Your task to perform on an android device: Open calendar and show me the third week of next month Image 0: 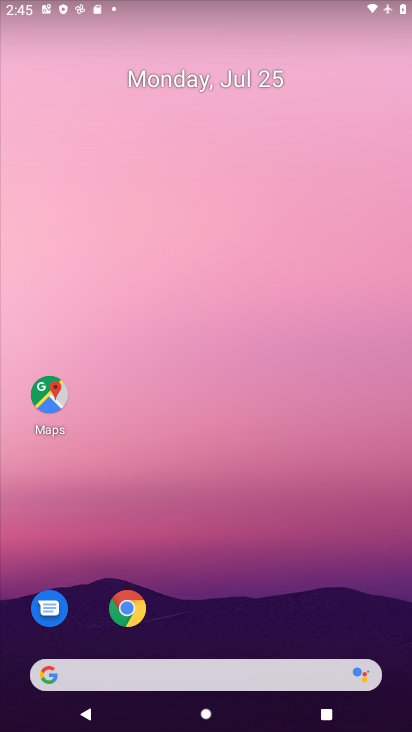
Step 0: drag from (195, 661) to (320, 181)
Your task to perform on an android device: Open calendar and show me the third week of next month Image 1: 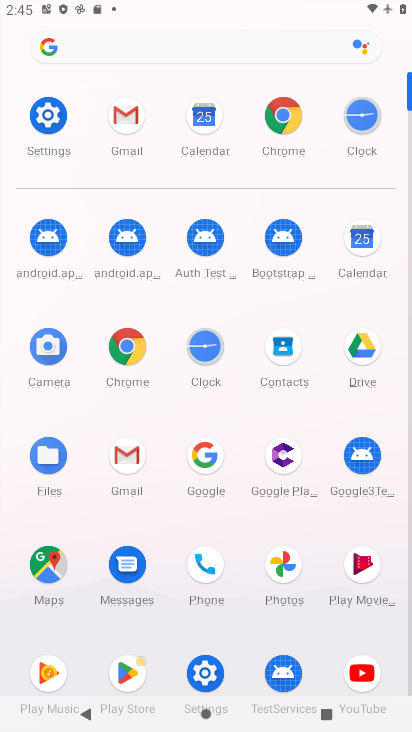
Step 1: click (356, 255)
Your task to perform on an android device: Open calendar and show me the third week of next month Image 2: 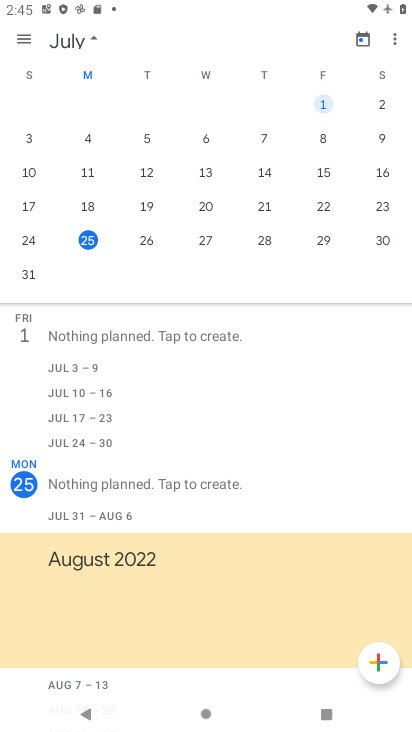
Step 2: drag from (337, 198) to (5, 226)
Your task to perform on an android device: Open calendar and show me the third week of next month Image 3: 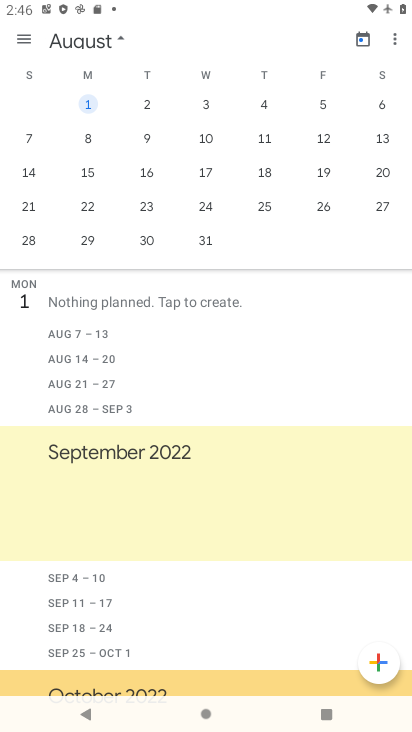
Step 3: click (36, 179)
Your task to perform on an android device: Open calendar and show me the third week of next month Image 4: 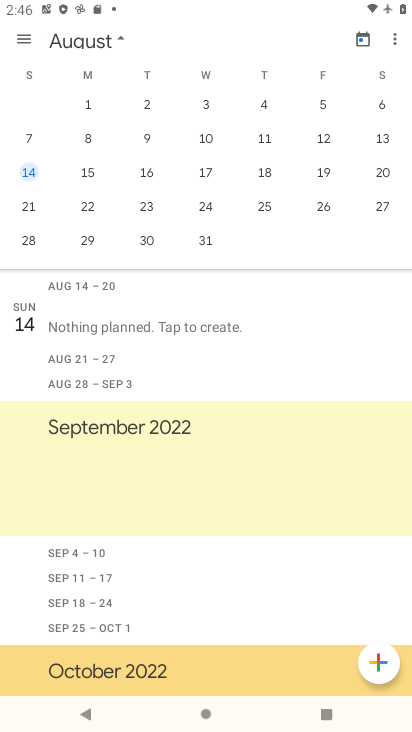
Step 4: task complete